Your task to perform on an android device: move a message to another label in the gmail app Image 0: 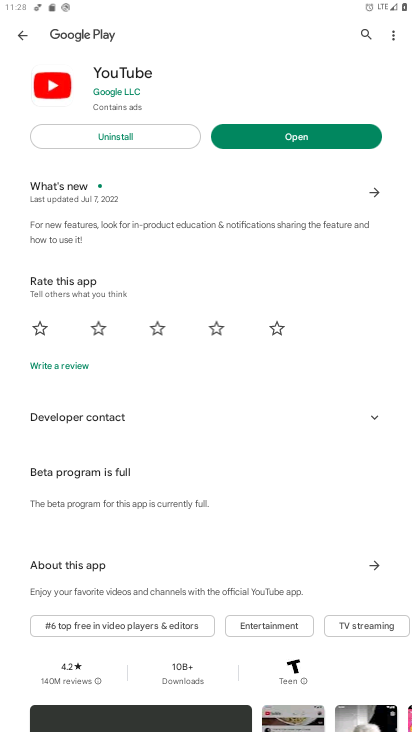
Step 0: press home button
Your task to perform on an android device: move a message to another label in the gmail app Image 1: 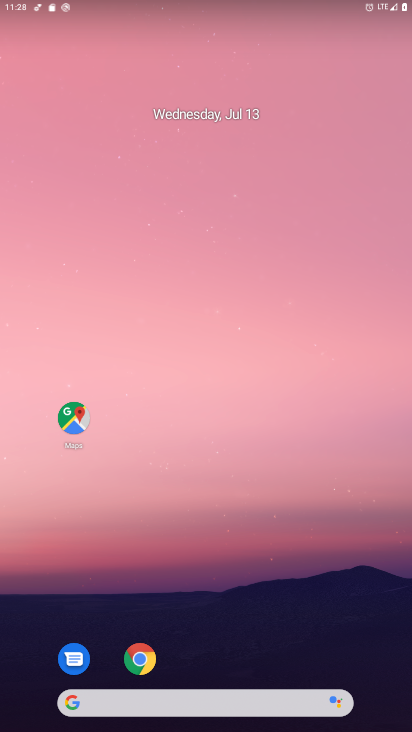
Step 1: drag from (207, 673) to (238, 1)
Your task to perform on an android device: move a message to another label in the gmail app Image 2: 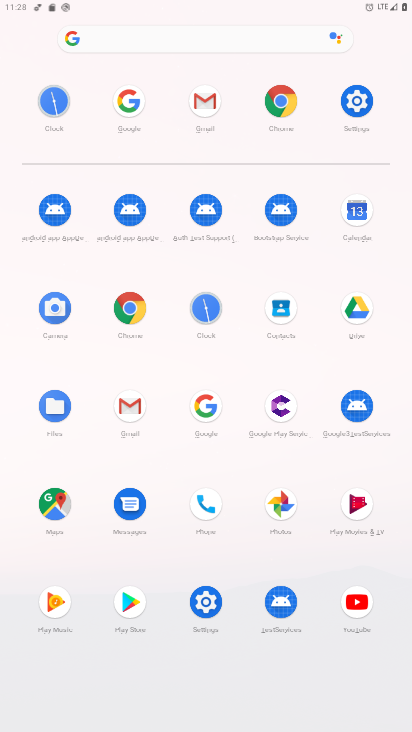
Step 2: click (204, 95)
Your task to perform on an android device: move a message to another label in the gmail app Image 3: 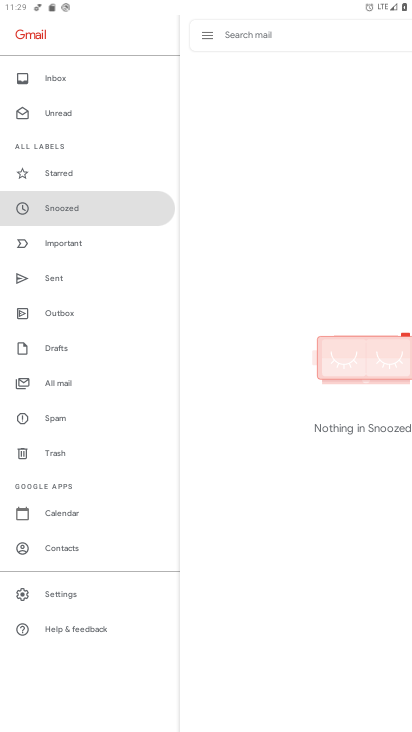
Step 3: click (67, 383)
Your task to perform on an android device: move a message to another label in the gmail app Image 4: 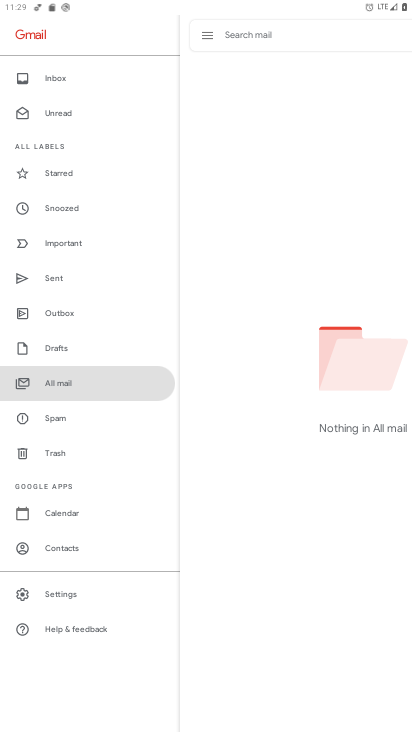
Step 4: task complete